Your task to perform on an android device: turn on sleep mode Image 0: 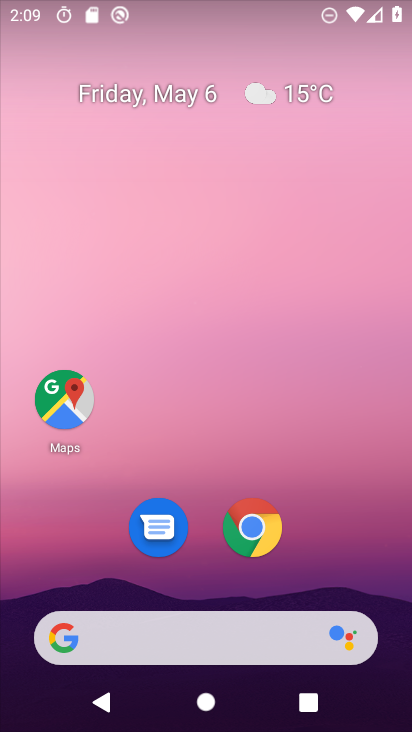
Step 0: drag from (328, 556) to (77, 68)
Your task to perform on an android device: turn on sleep mode Image 1: 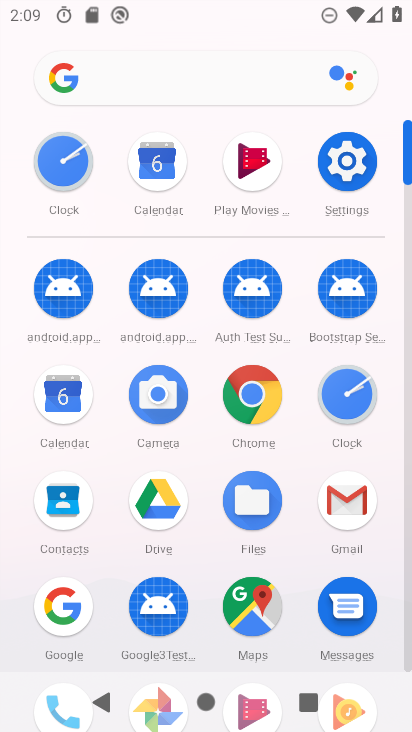
Step 1: click (349, 160)
Your task to perform on an android device: turn on sleep mode Image 2: 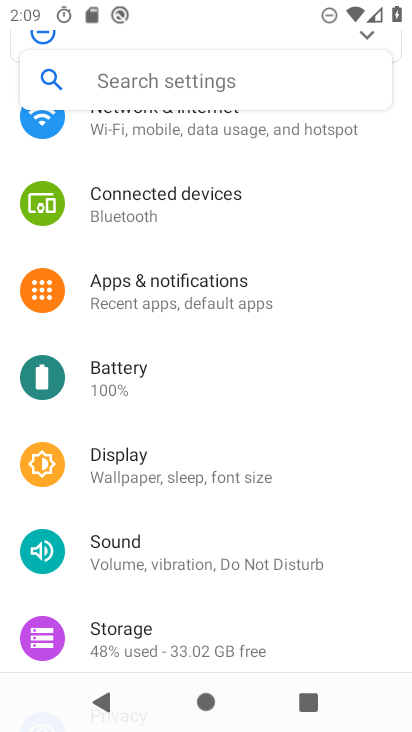
Step 2: click (173, 472)
Your task to perform on an android device: turn on sleep mode Image 3: 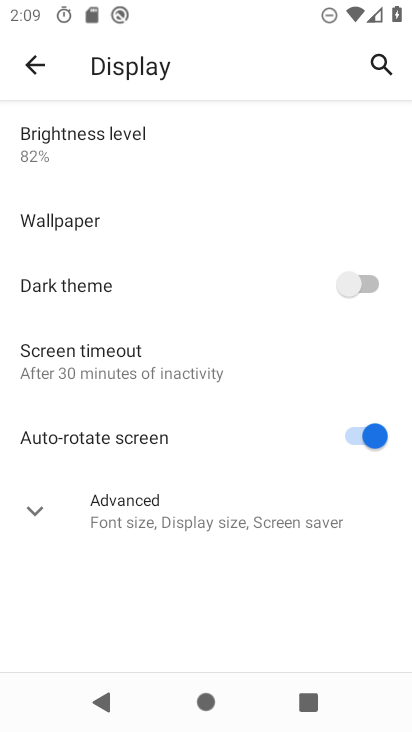
Step 3: click (142, 519)
Your task to perform on an android device: turn on sleep mode Image 4: 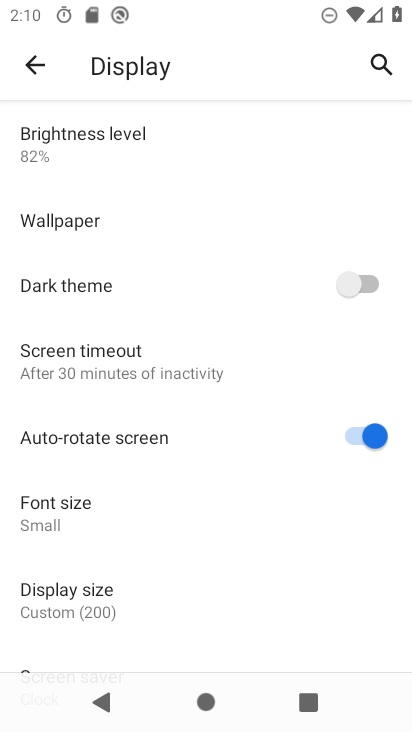
Step 4: task complete